Your task to perform on an android device: make emails show in primary in the gmail app Image 0: 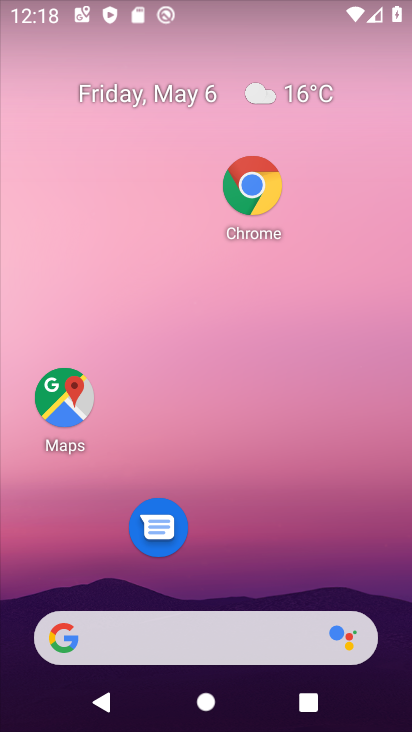
Step 0: drag from (220, 587) to (293, 148)
Your task to perform on an android device: make emails show in primary in the gmail app Image 1: 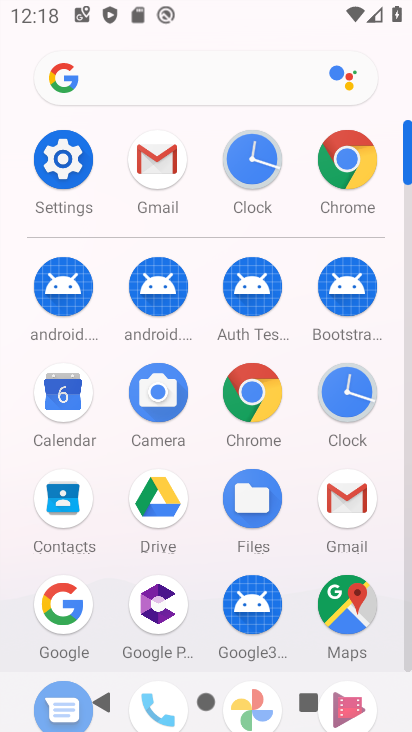
Step 1: click (358, 506)
Your task to perform on an android device: make emails show in primary in the gmail app Image 2: 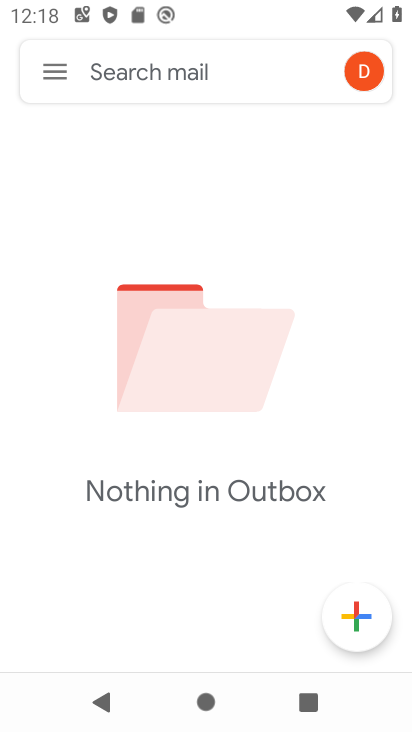
Step 2: click (58, 73)
Your task to perform on an android device: make emails show in primary in the gmail app Image 3: 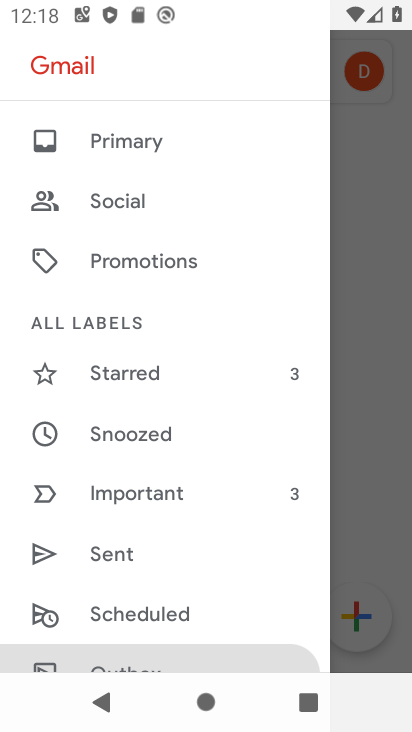
Step 3: drag from (135, 568) to (182, 140)
Your task to perform on an android device: make emails show in primary in the gmail app Image 4: 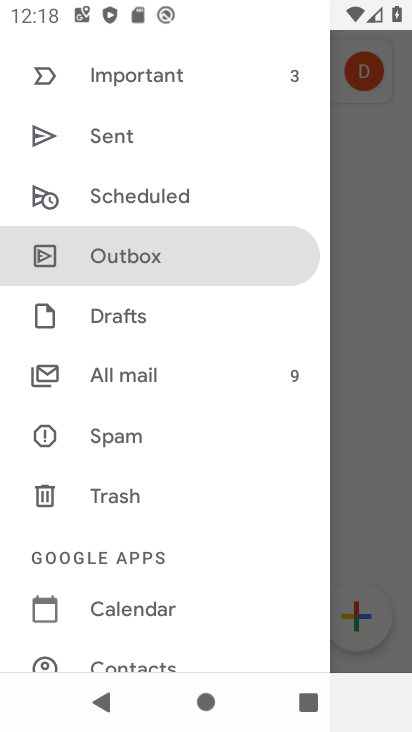
Step 4: drag from (152, 589) to (204, 217)
Your task to perform on an android device: make emails show in primary in the gmail app Image 5: 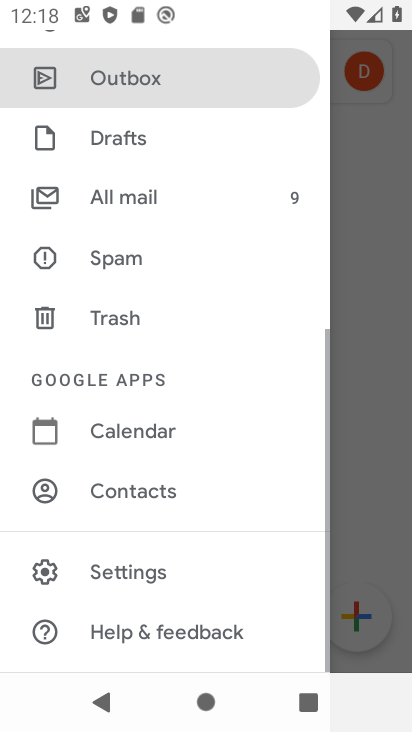
Step 5: click (133, 568)
Your task to perform on an android device: make emails show in primary in the gmail app Image 6: 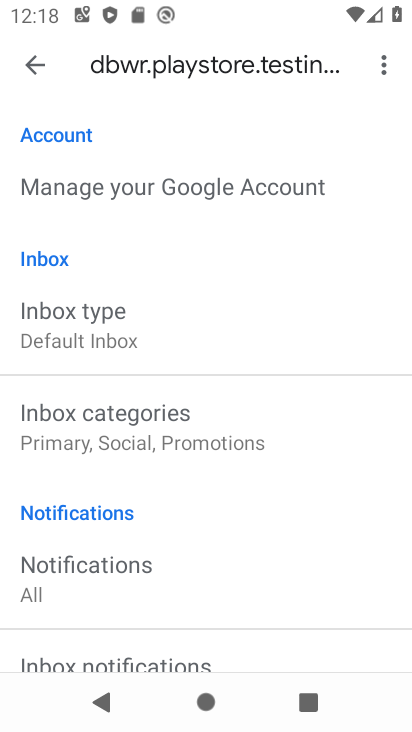
Step 6: click (136, 433)
Your task to perform on an android device: make emails show in primary in the gmail app Image 7: 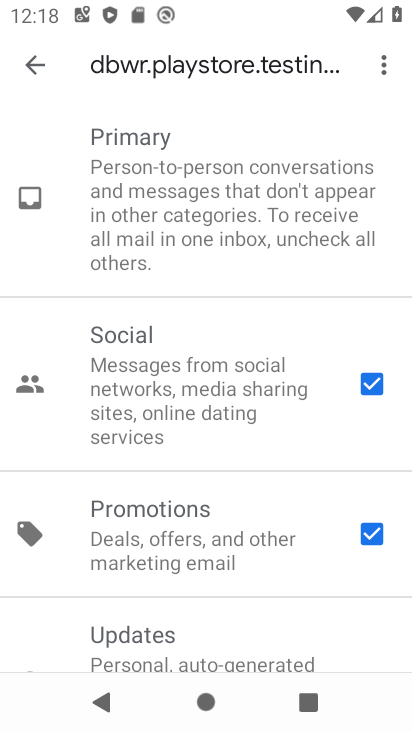
Step 7: click (341, 390)
Your task to perform on an android device: make emails show in primary in the gmail app Image 8: 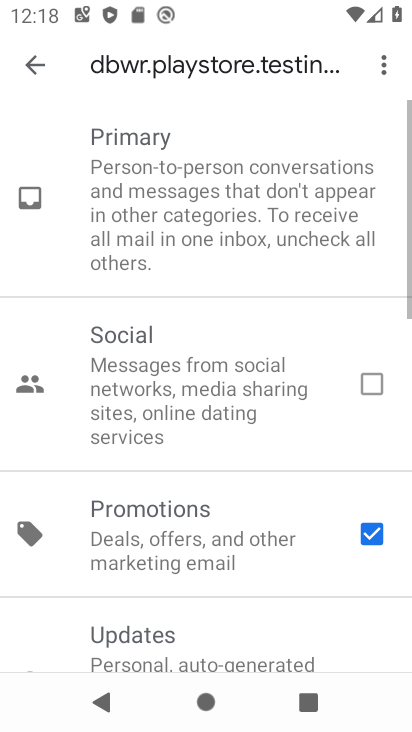
Step 8: click (344, 536)
Your task to perform on an android device: make emails show in primary in the gmail app Image 9: 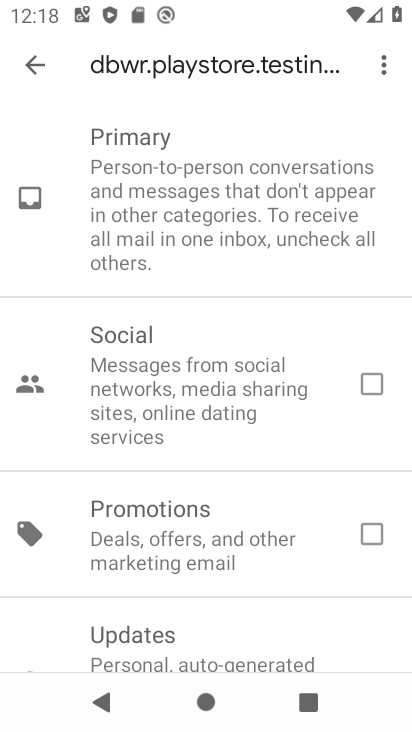
Step 9: task complete